Your task to perform on an android device: open a bookmark in the chrome app Image 0: 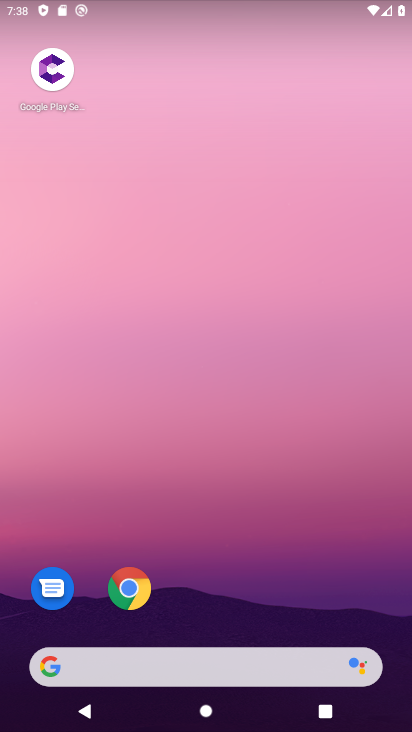
Step 0: click (121, 592)
Your task to perform on an android device: open a bookmark in the chrome app Image 1: 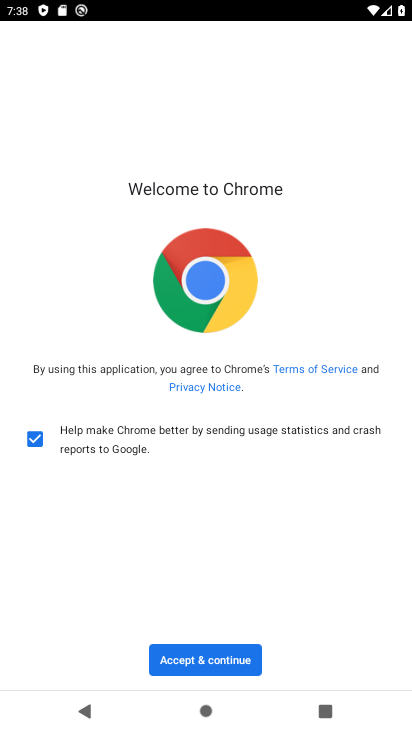
Step 1: click (189, 664)
Your task to perform on an android device: open a bookmark in the chrome app Image 2: 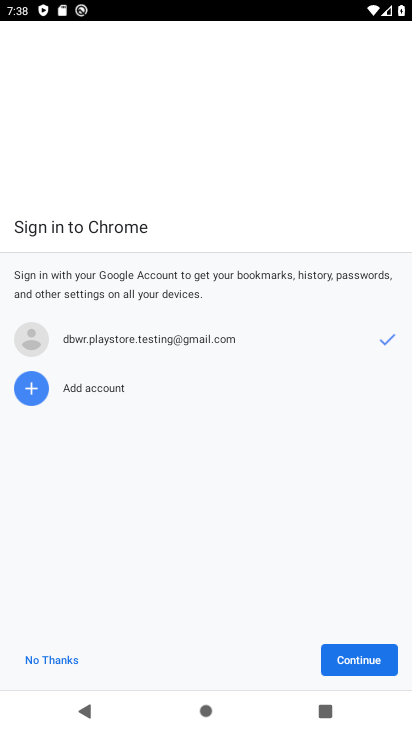
Step 2: click (358, 686)
Your task to perform on an android device: open a bookmark in the chrome app Image 3: 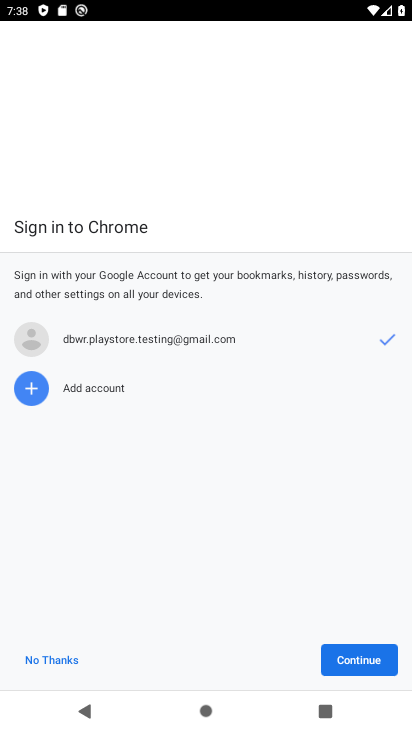
Step 3: click (358, 663)
Your task to perform on an android device: open a bookmark in the chrome app Image 4: 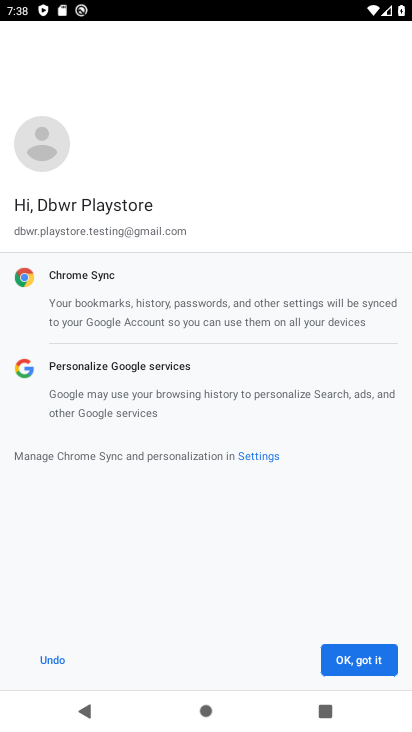
Step 4: click (358, 663)
Your task to perform on an android device: open a bookmark in the chrome app Image 5: 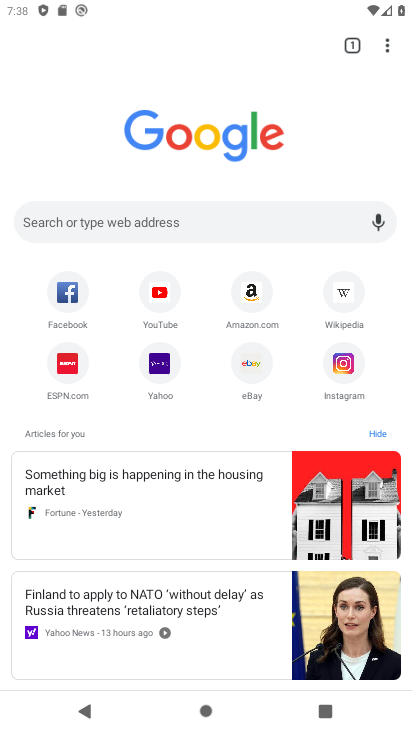
Step 5: drag from (379, 44) to (328, 167)
Your task to perform on an android device: open a bookmark in the chrome app Image 6: 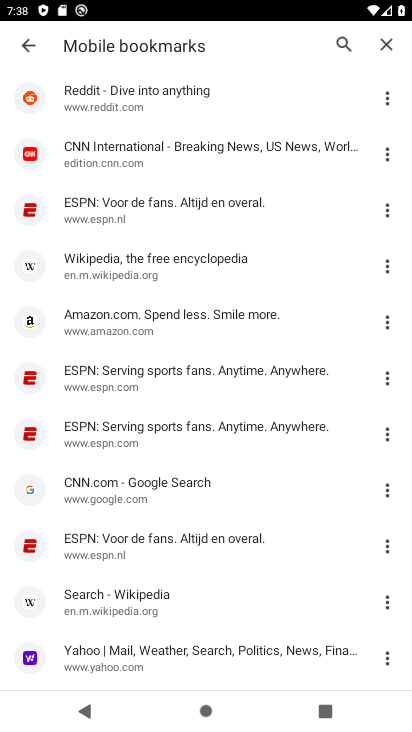
Step 6: click (268, 117)
Your task to perform on an android device: open a bookmark in the chrome app Image 7: 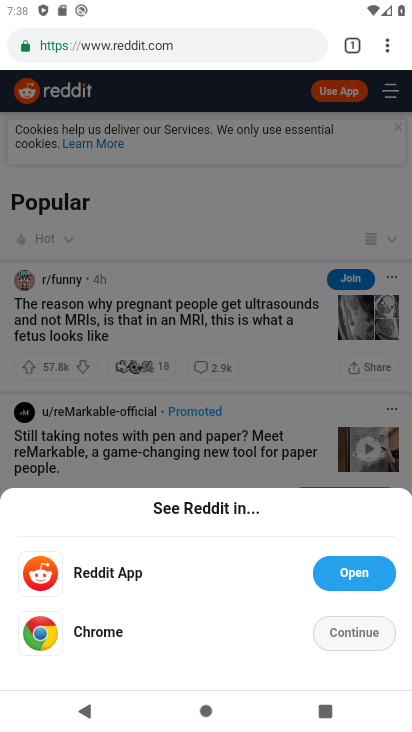
Step 7: task complete